Your task to perform on an android device: Go to location settings Image 0: 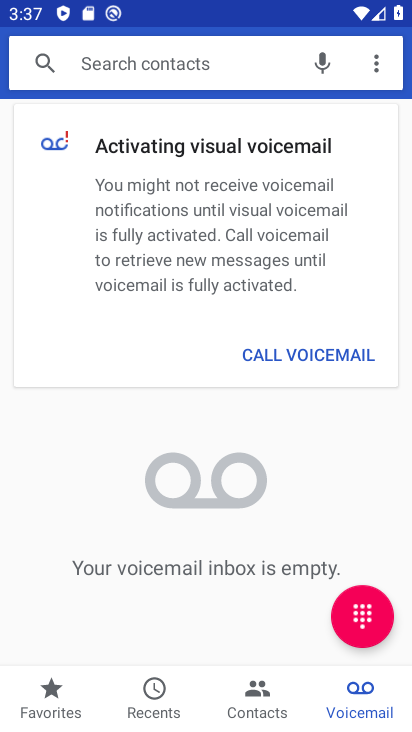
Step 0: press home button
Your task to perform on an android device: Go to location settings Image 1: 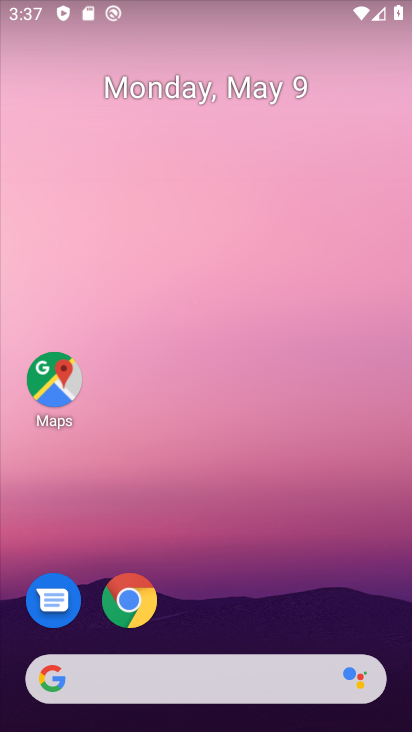
Step 1: drag from (302, 635) to (305, 22)
Your task to perform on an android device: Go to location settings Image 2: 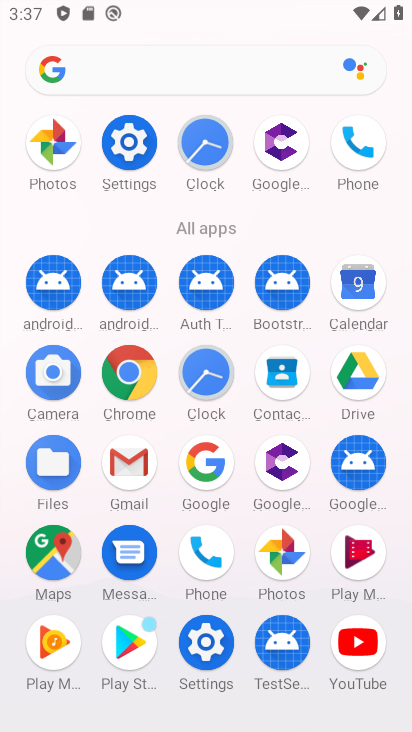
Step 2: click (135, 155)
Your task to perform on an android device: Go to location settings Image 3: 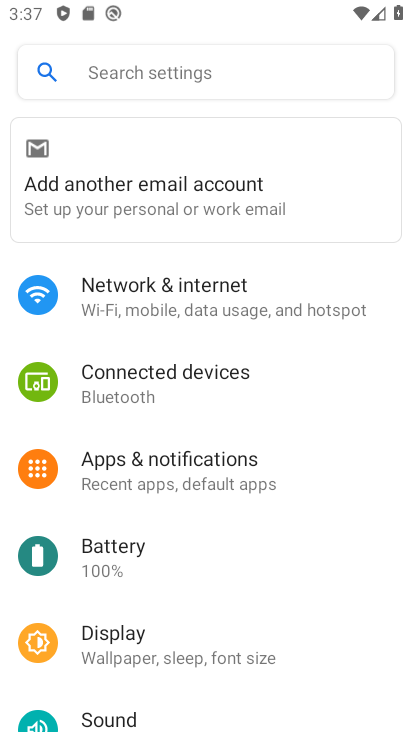
Step 3: drag from (212, 678) to (220, 96)
Your task to perform on an android device: Go to location settings Image 4: 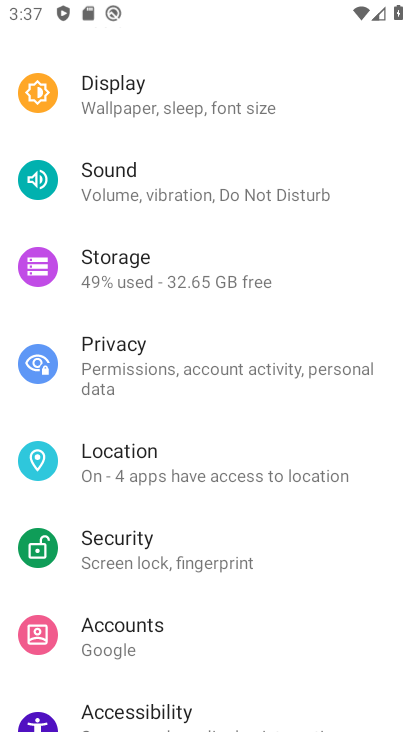
Step 4: click (207, 474)
Your task to perform on an android device: Go to location settings Image 5: 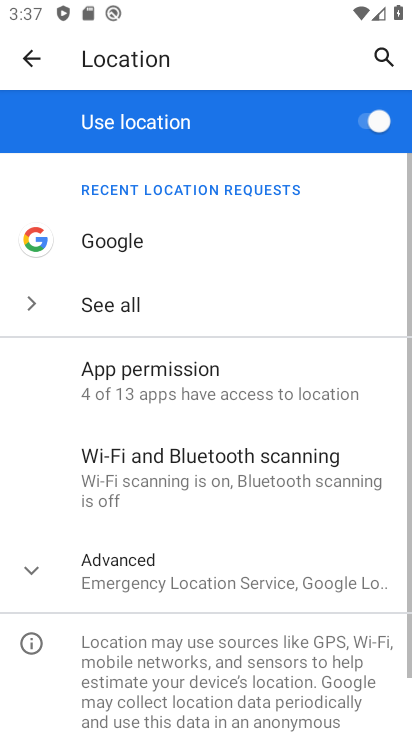
Step 5: task complete